Your task to perform on an android device: change the upload size in google photos Image 0: 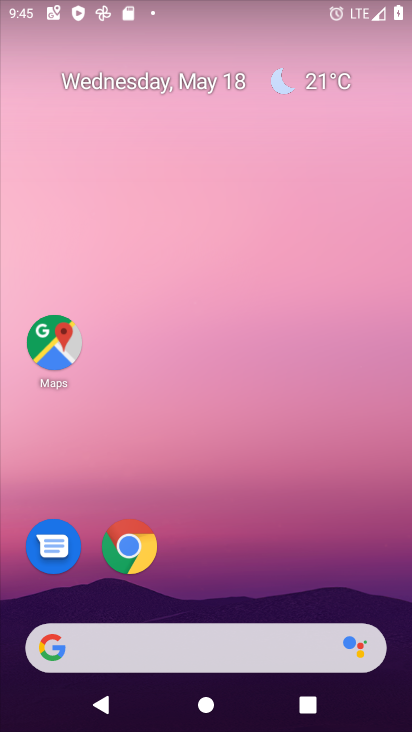
Step 0: drag from (392, 644) to (275, 112)
Your task to perform on an android device: change the upload size in google photos Image 1: 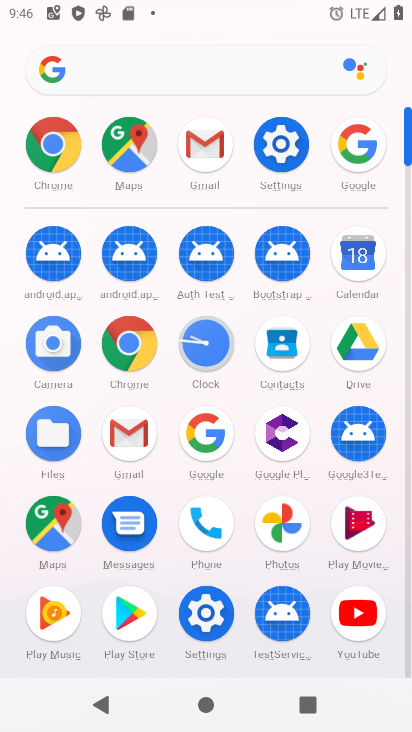
Step 1: click (279, 534)
Your task to perform on an android device: change the upload size in google photos Image 2: 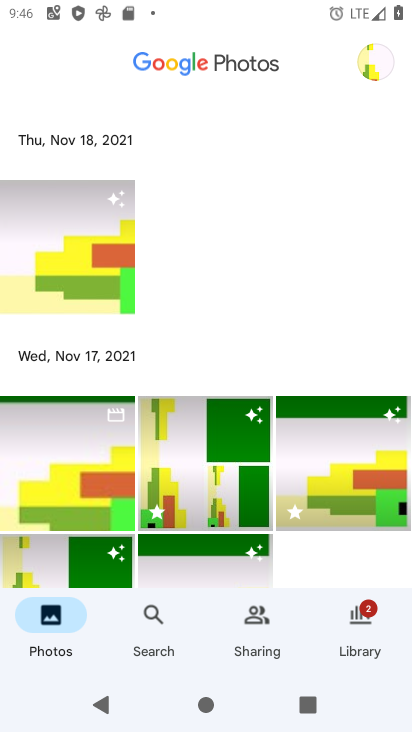
Step 2: click (374, 61)
Your task to perform on an android device: change the upload size in google photos Image 3: 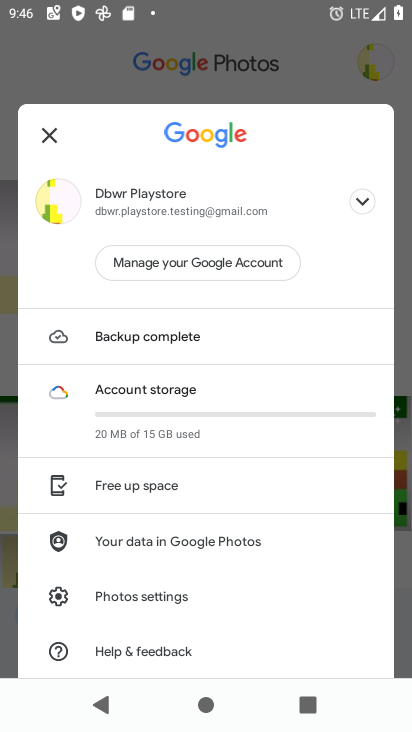
Step 3: click (167, 589)
Your task to perform on an android device: change the upload size in google photos Image 4: 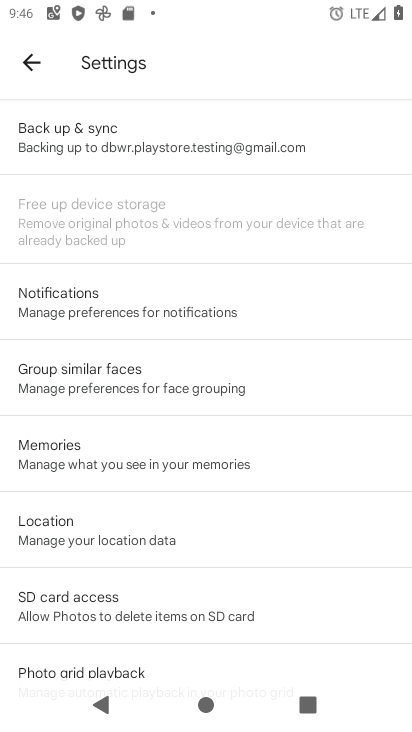
Step 4: click (149, 173)
Your task to perform on an android device: change the upload size in google photos Image 5: 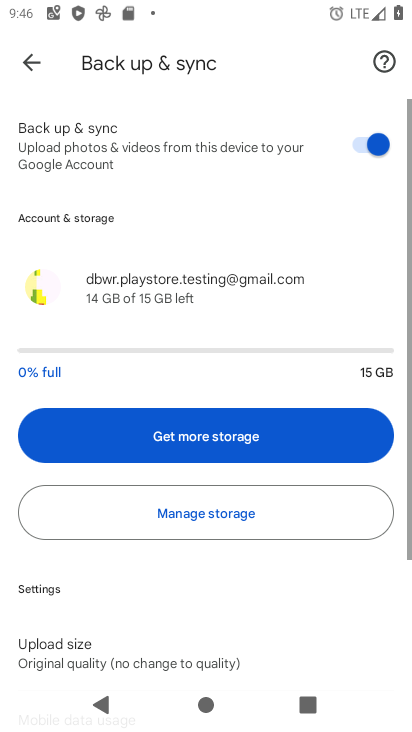
Step 5: drag from (114, 643) to (187, 278)
Your task to perform on an android device: change the upload size in google photos Image 6: 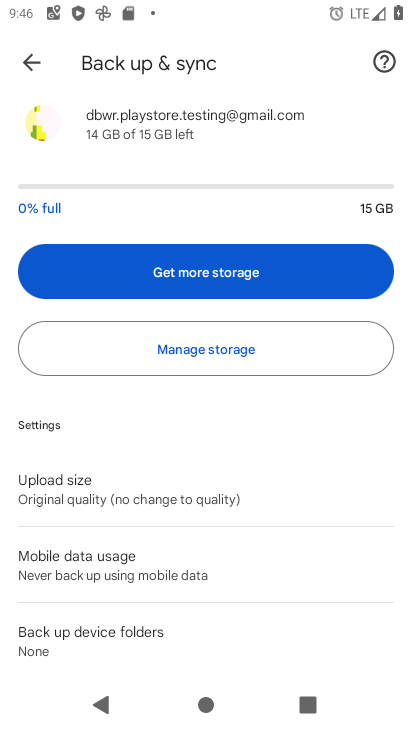
Step 6: click (117, 506)
Your task to perform on an android device: change the upload size in google photos Image 7: 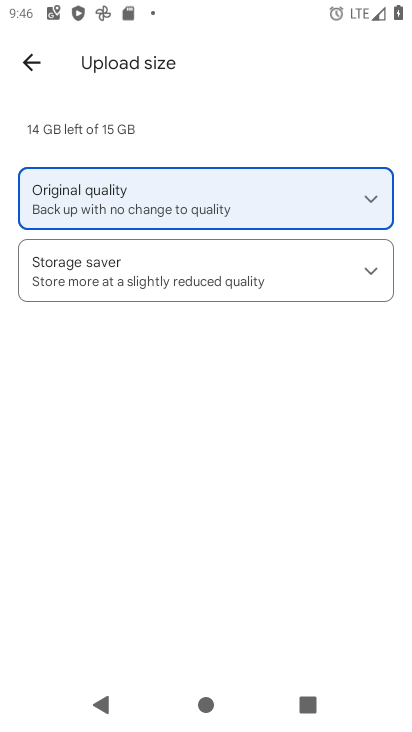
Step 7: click (258, 278)
Your task to perform on an android device: change the upload size in google photos Image 8: 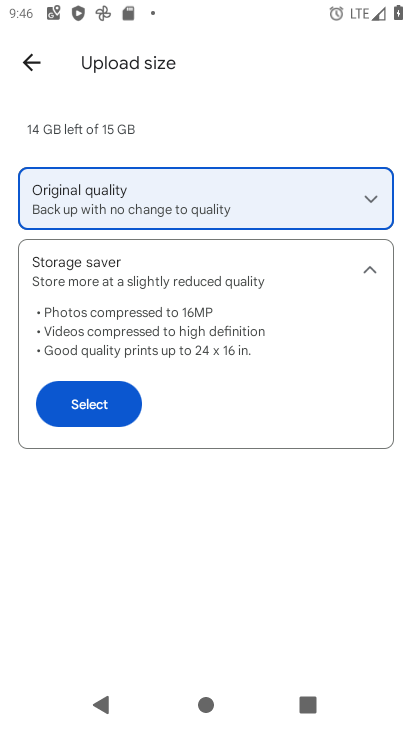
Step 8: click (94, 403)
Your task to perform on an android device: change the upload size in google photos Image 9: 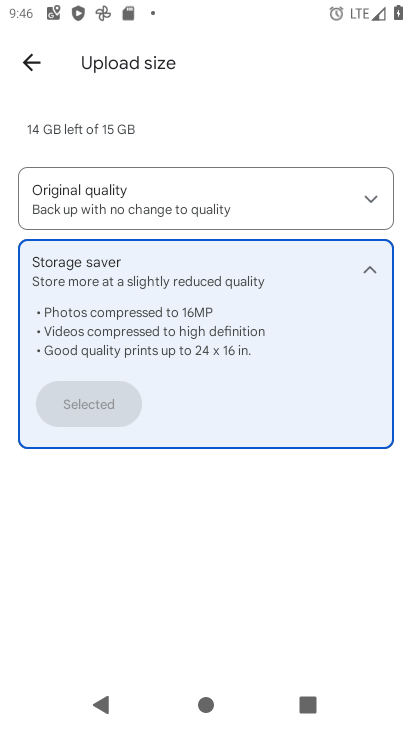
Step 9: task complete